Your task to perform on an android device: toggle improve location accuracy Image 0: 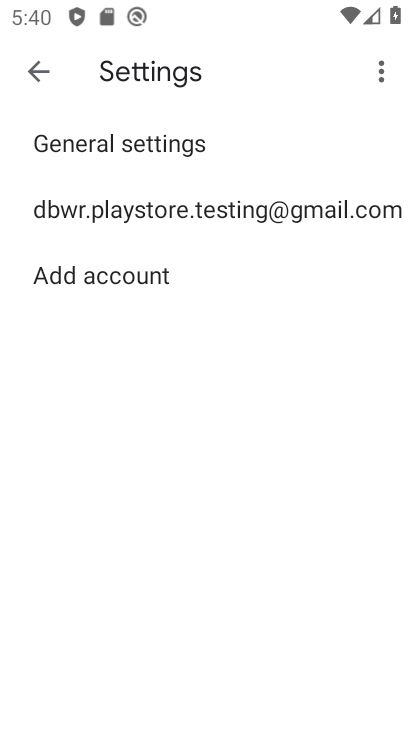
Step 0: press home button
Your task to perform on an android device: toggle improve location accuracy Image 1: 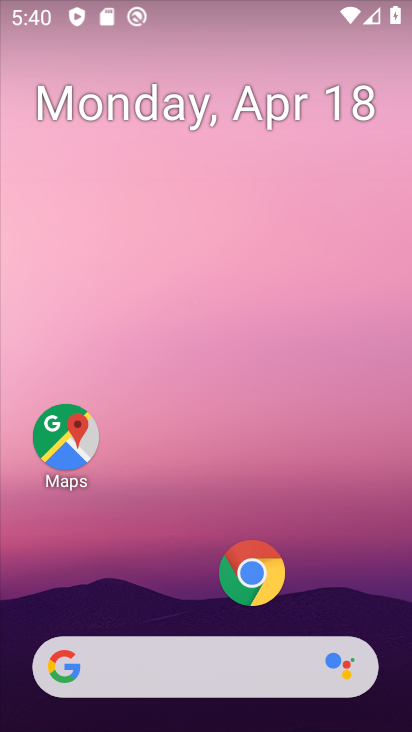
Step 1: drag from (187, 494) to (255, 213)
Your task to perform on an android device: toggle improve location accuracy Image 2: 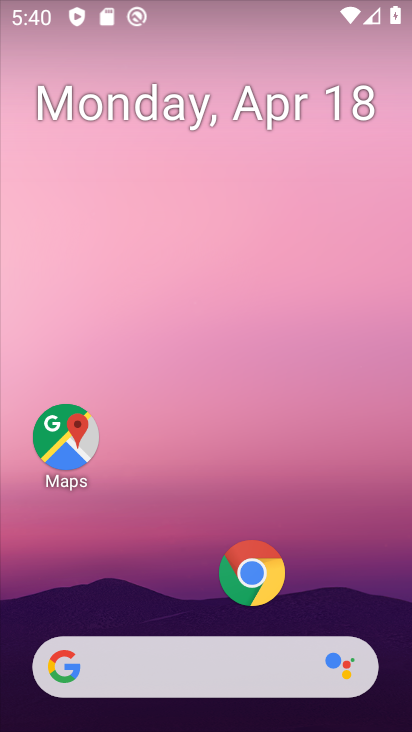
Step 2: drag from (253, 213) to (237, 259)
Your task to perform on an android device: toggle improve location accuracy Image 3: 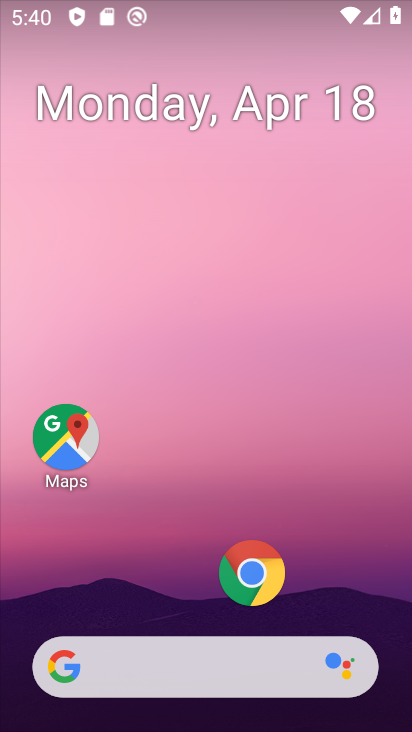
Step 3: drag from (167, 532) to (359, 7)
Your task to perform on an android device: toggle improve location accuracy Image 4: 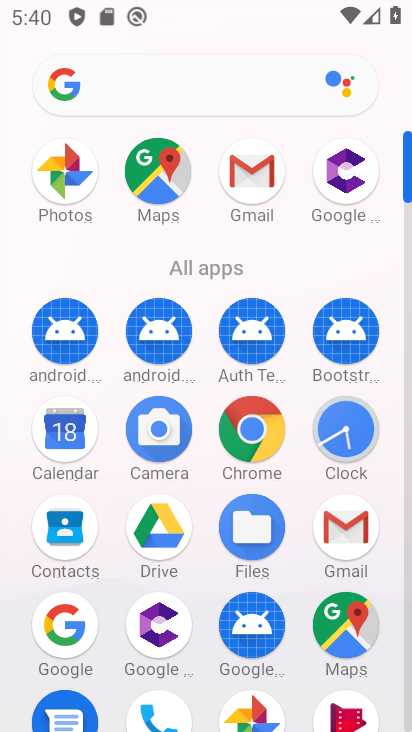
Step 4: drag from (203, 495) to (293, 3)
Your task to perform on an android device: toggle improve location accuracy Image 5: 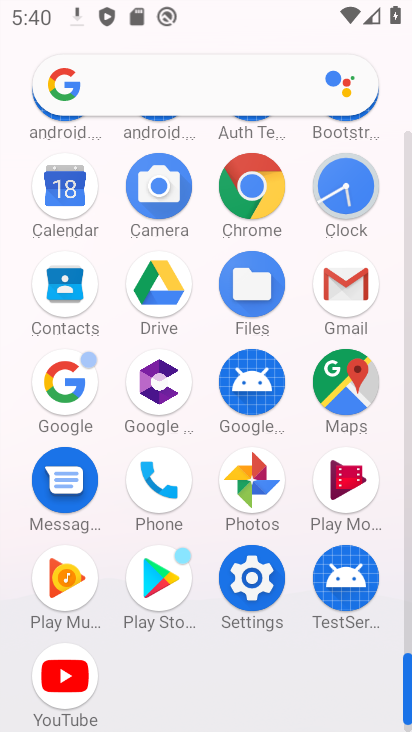
Step 5: click (267, 585)
Your task to perform on an android device: toggle improve location accuracy Image 6: 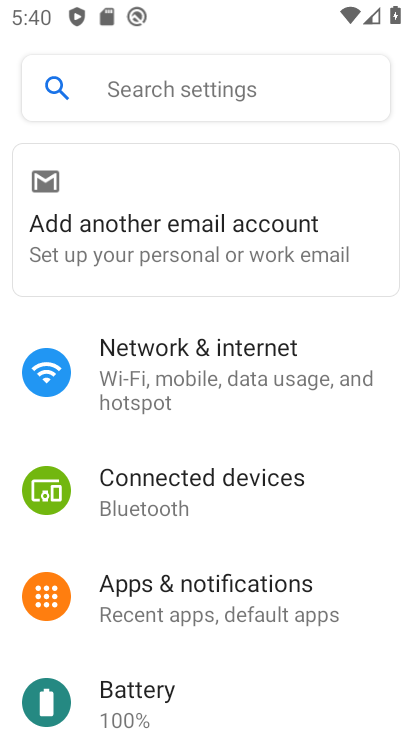
Step 6: drag from (206, 618) to (310, 248)
Your task to perform on an android device: toggle improve location accuracy Image 7: 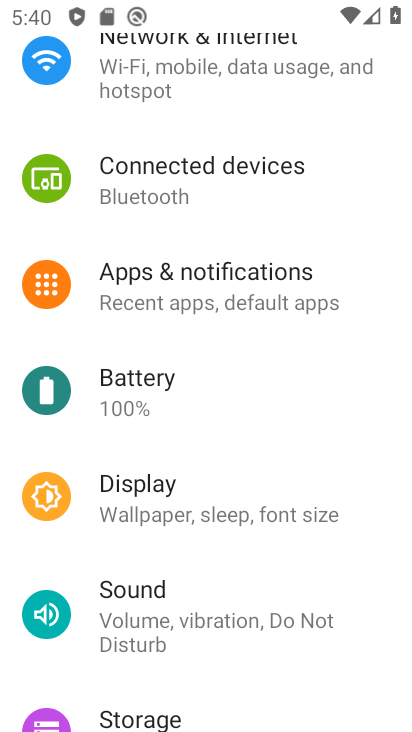
Step 7: drag from (174, 541) to (358, 26)
Your task to perform on an android device: toggle improve location accuracy Image 8: 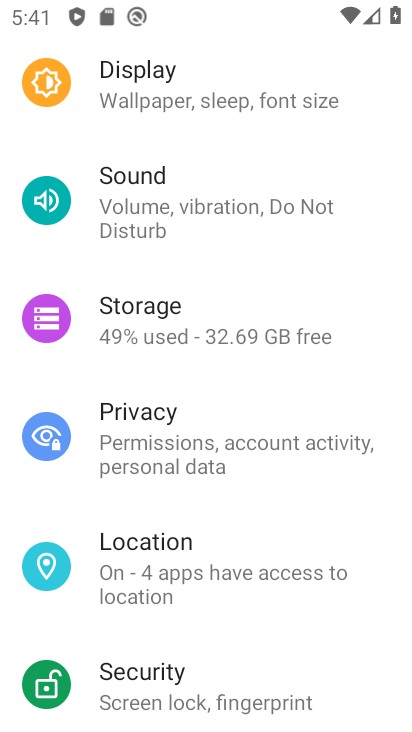
Step 8: click (202, 612)
Your task to perform on an android device: toggle improve location accuracy Image 9: 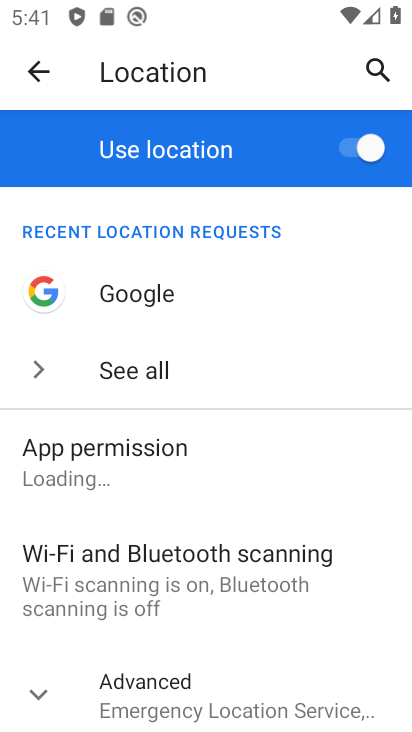
Step 9: click (165, 688)
Your task to perform on an android device: toggle improve location accuracy Image 10: 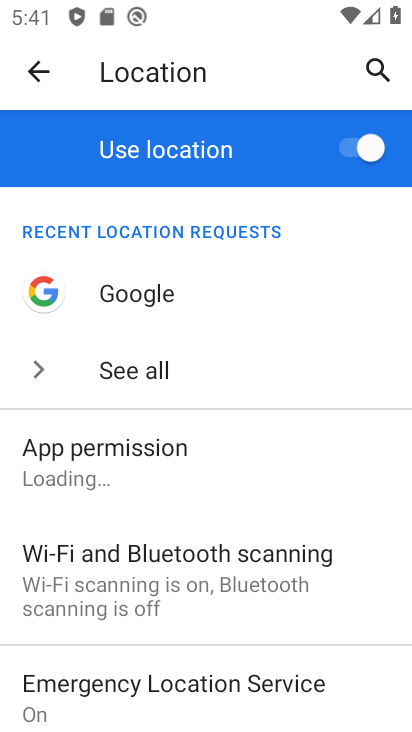
Step 10: drag from (172, 612) to (283, 132)
Your task to perform on an android device: toggle improve location accuracy Image 11: 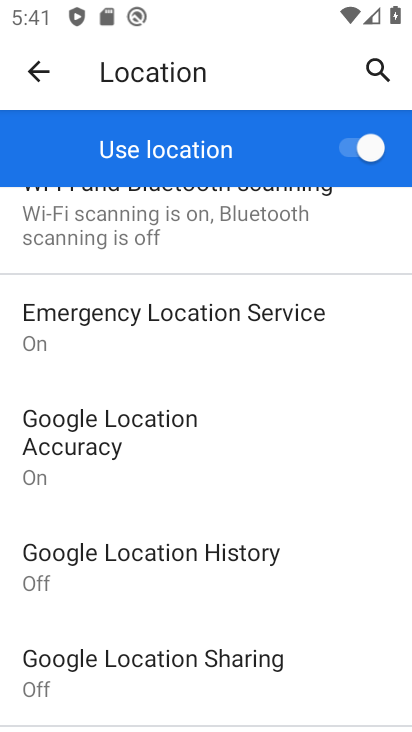
Step 11: drag from (155, 667) to (81, 454)
Your task to perform on an android device: toggle improve location accuracy Image 12: 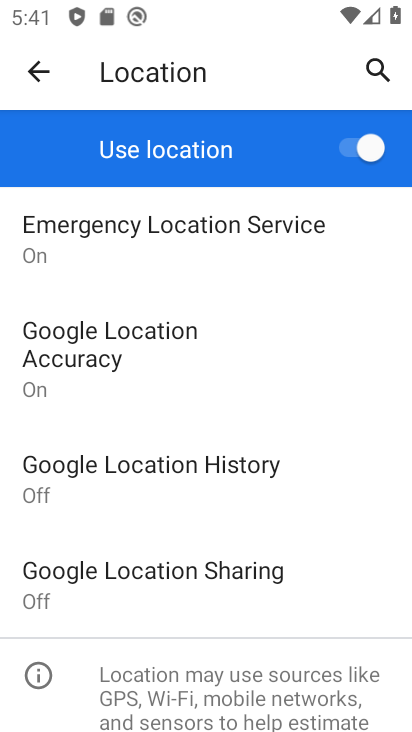
Step 12: click (87, 353)
Your task to perform on an android device: toggle improve location accuracy Image 13: 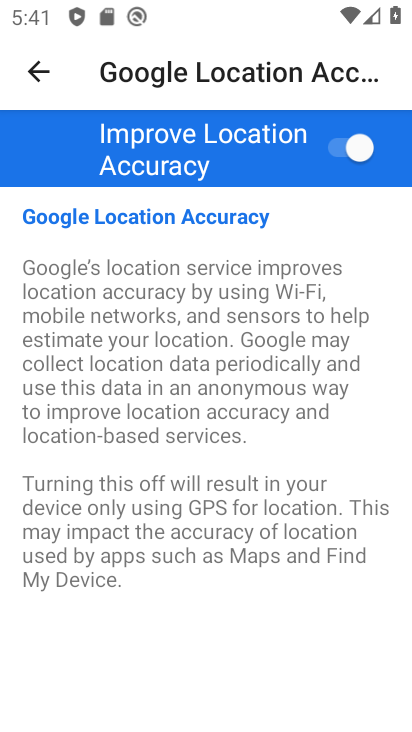
Step 13: click (324, 192)
Your task to perform on an android device: toggle improve location accuracy Image 14: 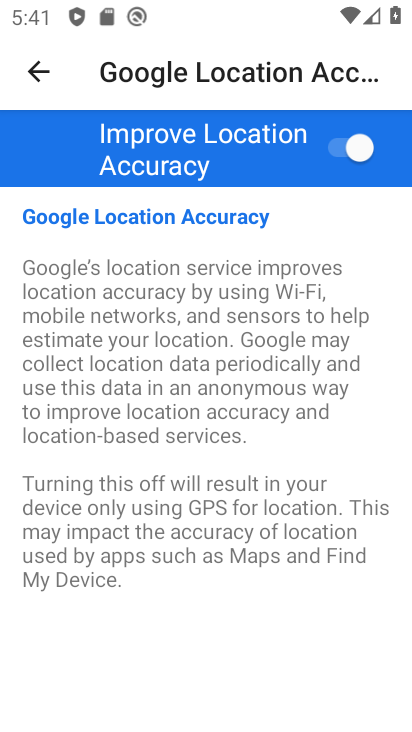
Step 14: click (341, 147)
Your task to perform on an android device: toggle improve location accuracy Image 15: 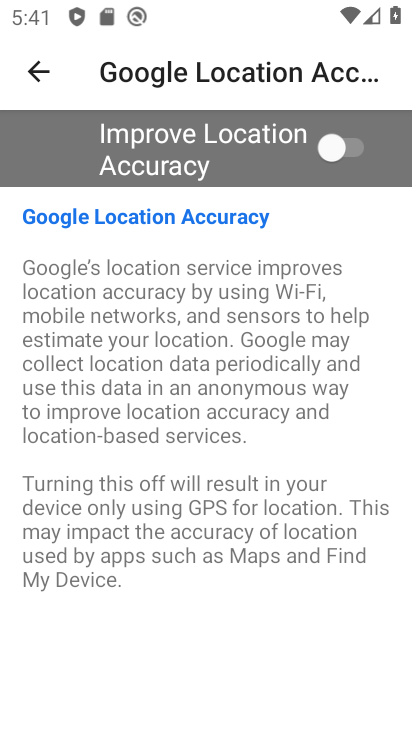
Step 15: task complete